Your task to perform on an android device: add a contact in the contacts app Image 0: 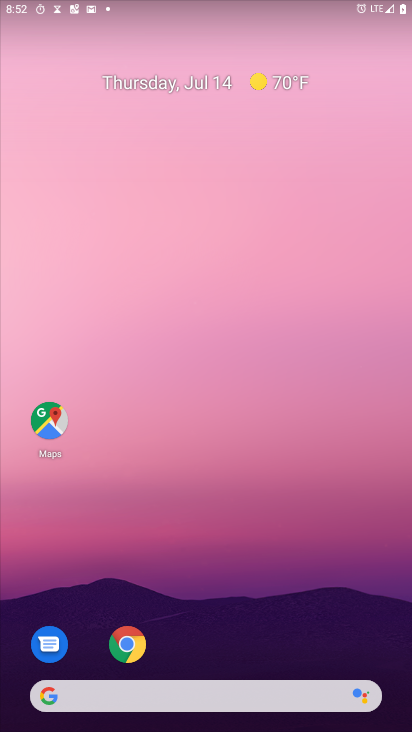
Step 0: drag from (169, 699) to (324, 21)
Your task to perform on an android device: add a contact in the contacts app Image 1: 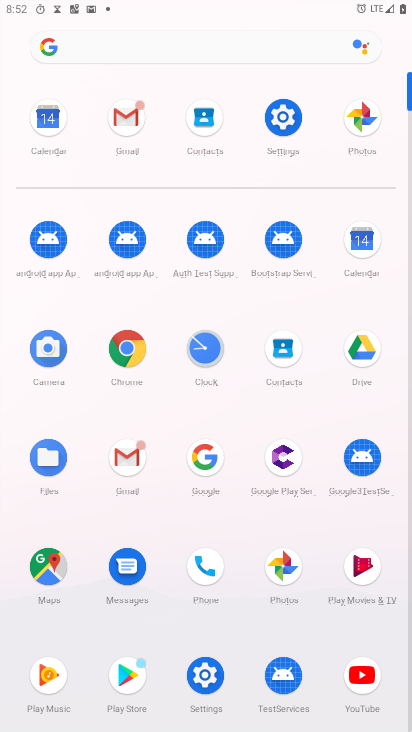
Step 1: click (278, 351)
Your task to perform on an android device: add a contact in the contacts app Image 2: 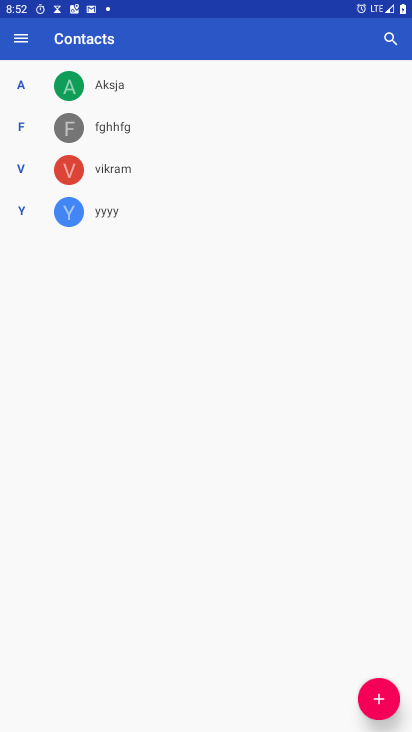
Step 2: click (370, 700)
Your task to perform on an android device: add a contact in the contacts app Image 3: 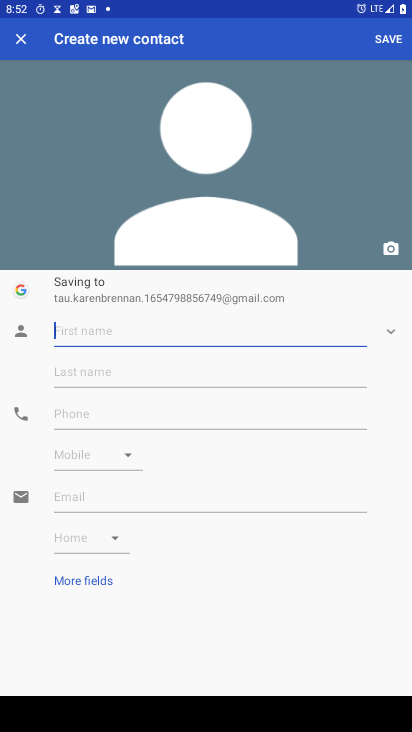
Step 3: type "nhuytfvfc"
Your task to perform on an android device: add a contact in the contacts app Image 4: 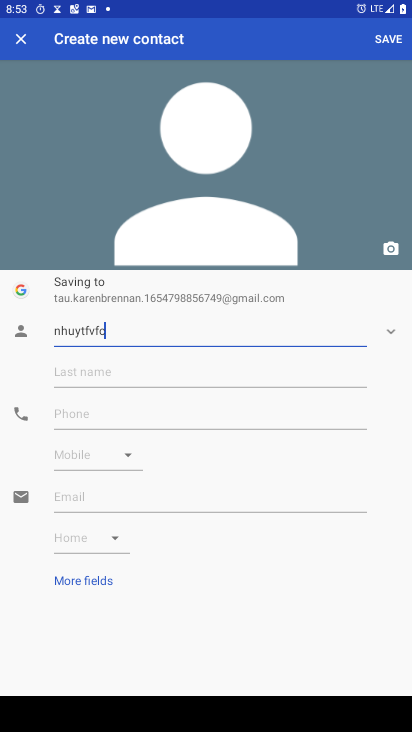
Step 4: click (60, 407)
Your task to perform on an android device: add a contact in the contacts app Image 5: 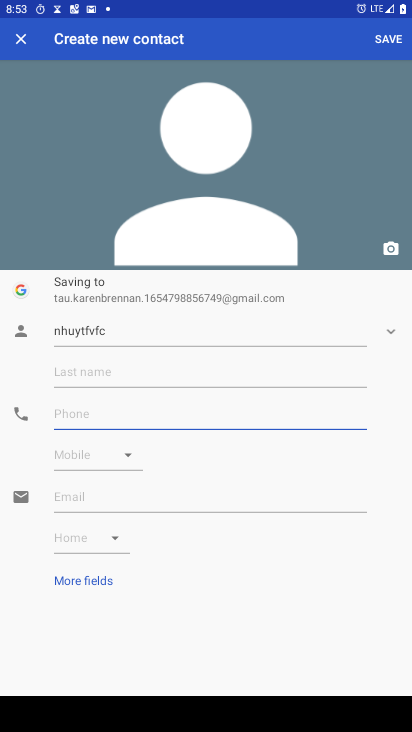
Step 5: type "45377688766"
Your task to perform on an android device: add a contact in the contacts app Image 6: 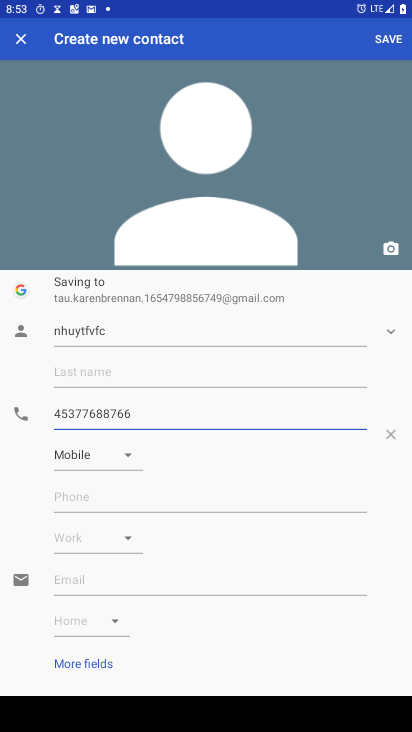
Step 6: click (394, 41)
Your task to perform on an android device: add a contact in the contacts app Image 7: 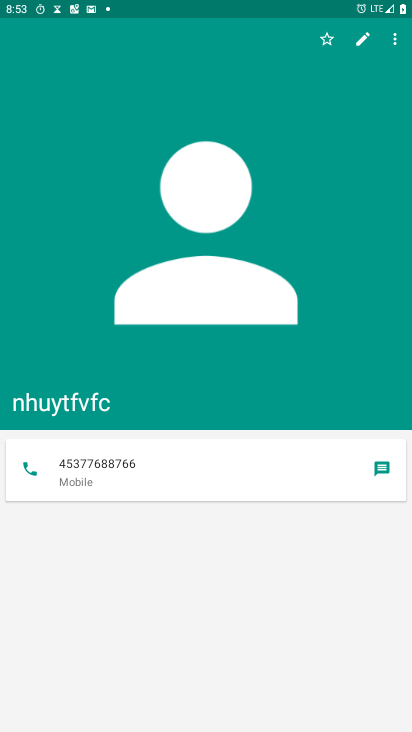
Step 7: task complete